Your task to perform on an android device: toggle airplane mode Image 0: 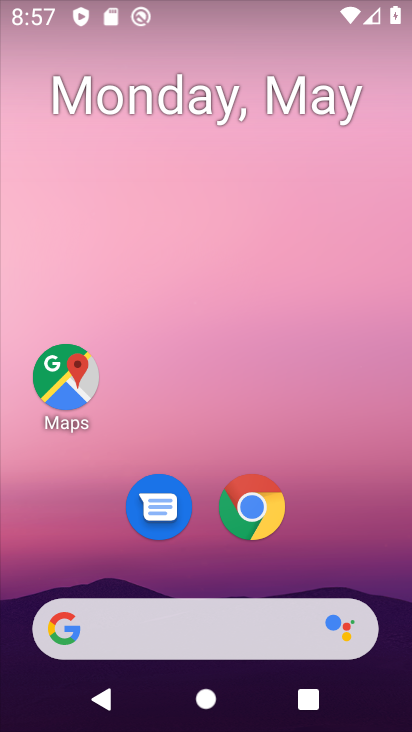
Step 0: drag from (193, 583) to (292, 62)
Your task to perform on an android device: toggle airplane mode Image 1: 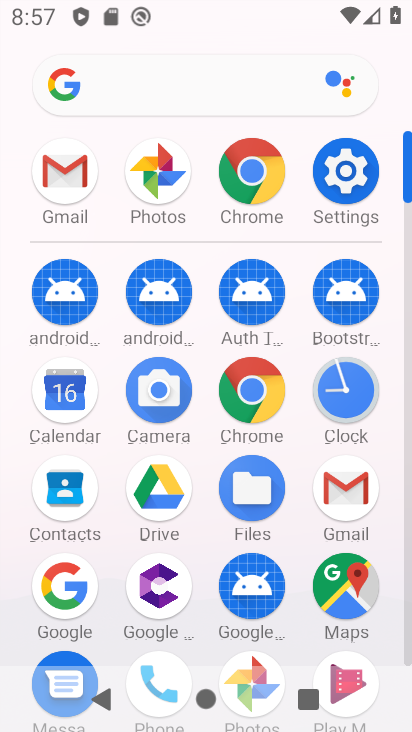
Step 1: click (351, 205)
Your task to perform on an android device: toggle airplane mode Image 2: 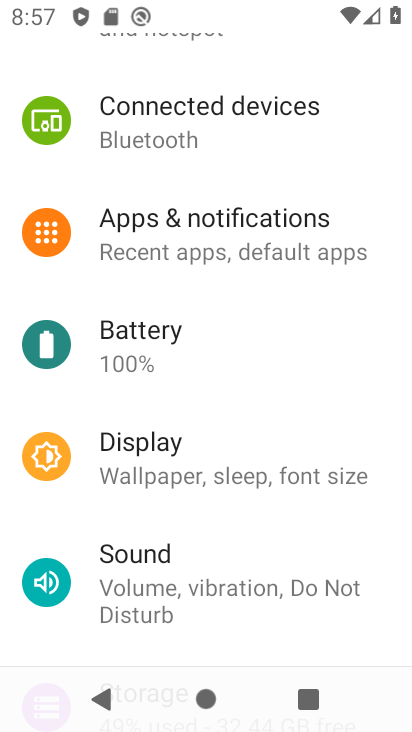
Step 2: drag from (256, 203) to (238, 617)
Your task to perform on an android device: toggle airplane mode Image 3: 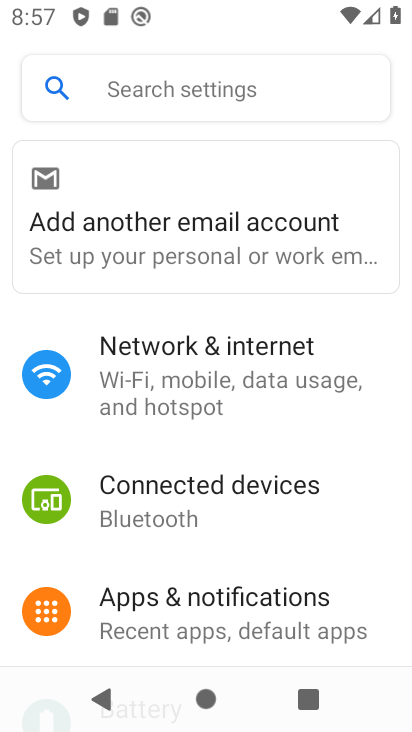
Step 3: click (235, 380)
Your task to perform on an android device: toggle airplane mode Image 4: 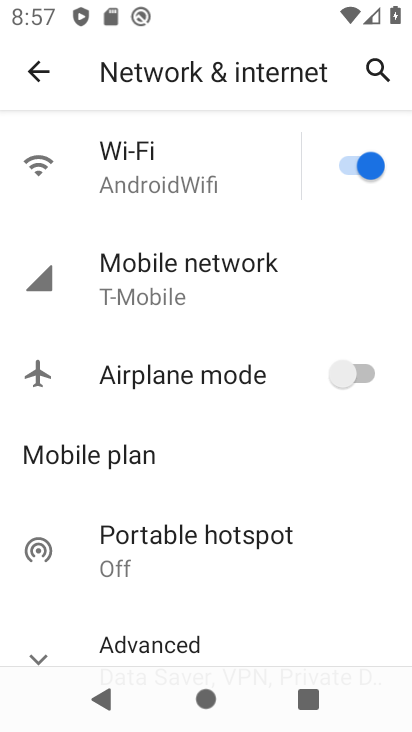
Step 4: click (330, 370)
Your task to perform on an android device: toggle airplane mode Image 5: 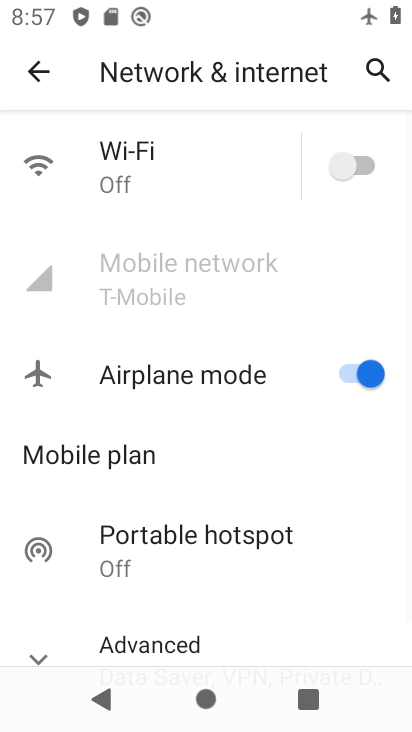
Step 5: task complete